Your task to perform on an android device: turn off airplane mode Image 0: 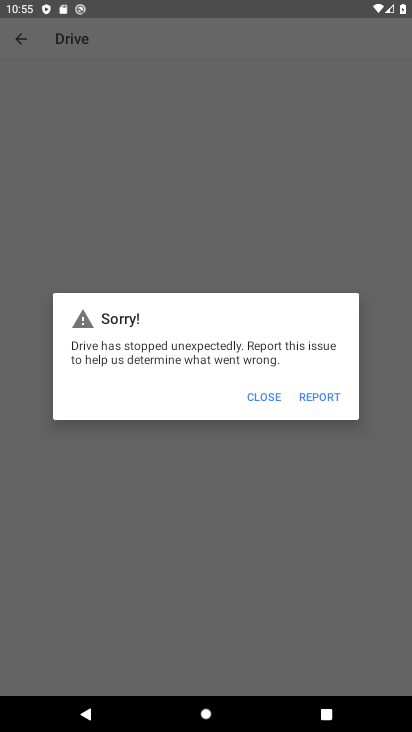
Step 0: press back button
Your task to perform on an android device: turn off airplane mode Image 1: 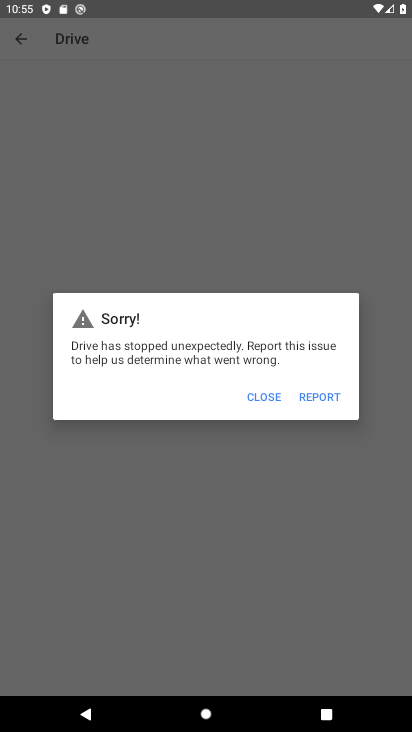
Step 1: press back button
Your task to perform on an android device: turn off airplane mode Image 2: 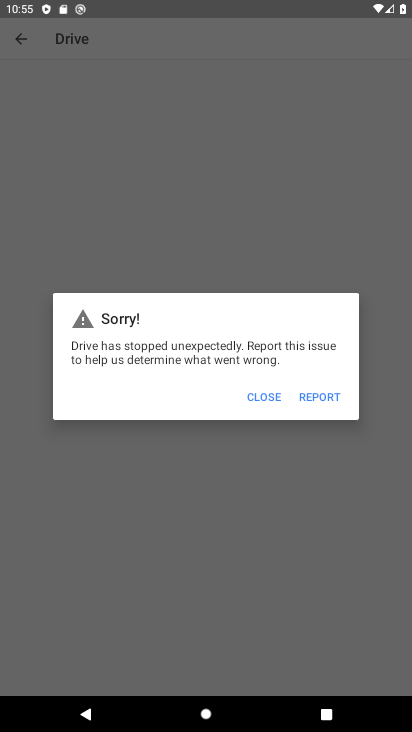
Step 2: press home button
Your task to perform on an android device: turn off airplane mode Image 3: 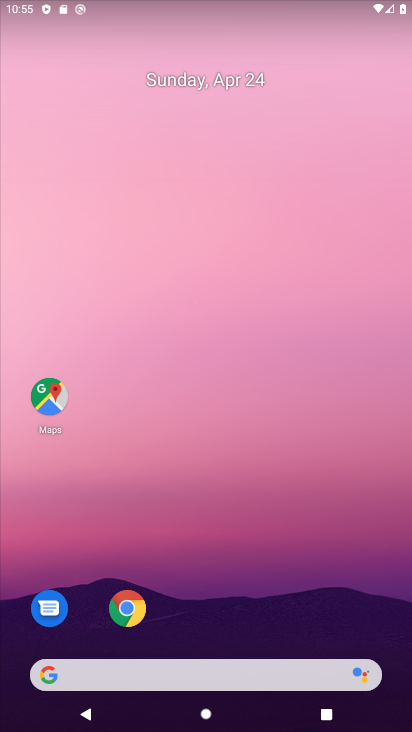
Step 3: drag from (237, 423) to (229, 66)
Your task to perform on an android device: turn off airplane mode Image 4: 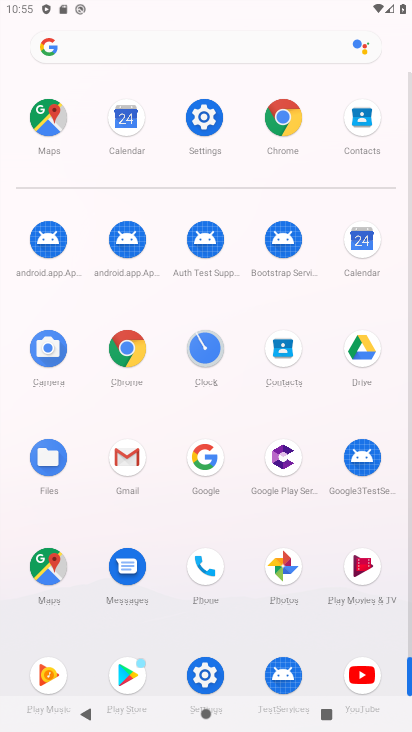
Step 4: drag from (4, 576) to (7, 349)
Your task to perform on an android device: turn off airplane mode Image 5: 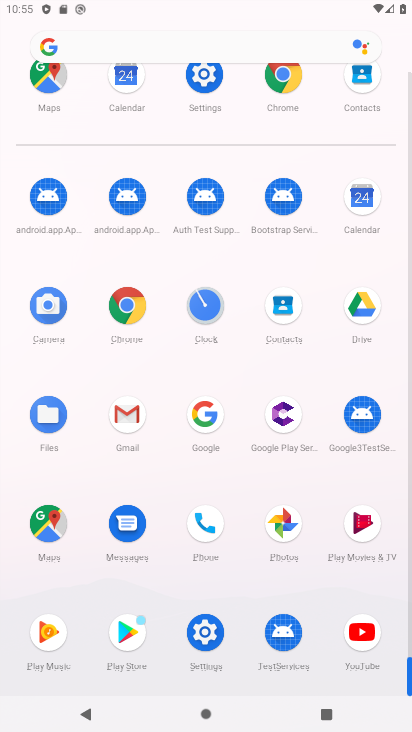
Step 5: click (204, 623)
Your task to perform on an android device: turn off airplane mode Image 6: 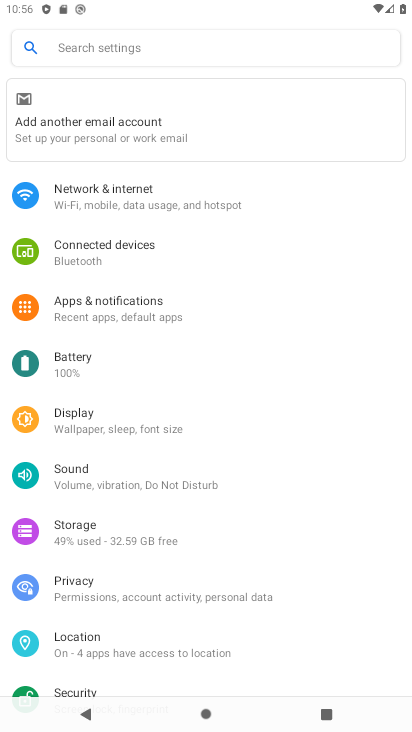
Step 6: click (182, 185)
Your task to perform on an android device: turn off airplane mode Image 7: 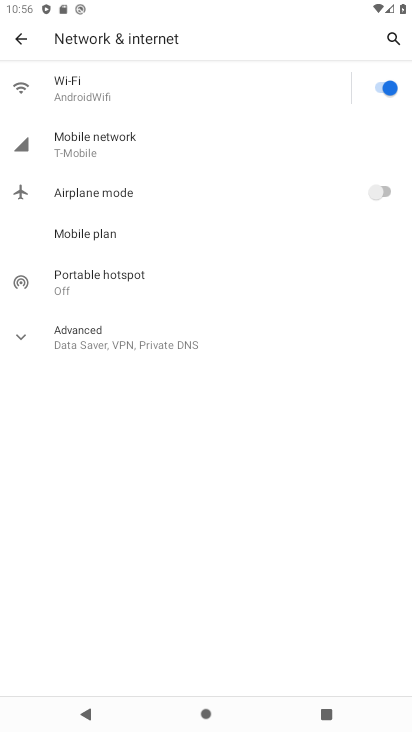
Step 7: click (19, 327)
Your task to perform on an android device: turn off airplane mode Image 8: 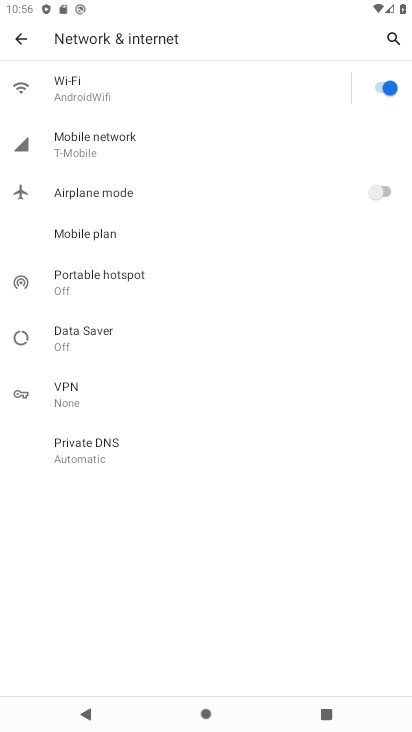
Step 8: task complete